Your task to perform on an android device: turn off wifi Image 0: 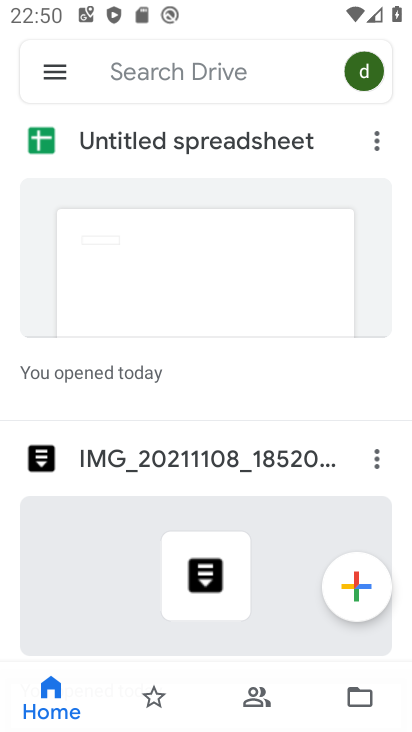
Step 0: press home button
Your task to perform on an android device: turn off wifi Image 1: 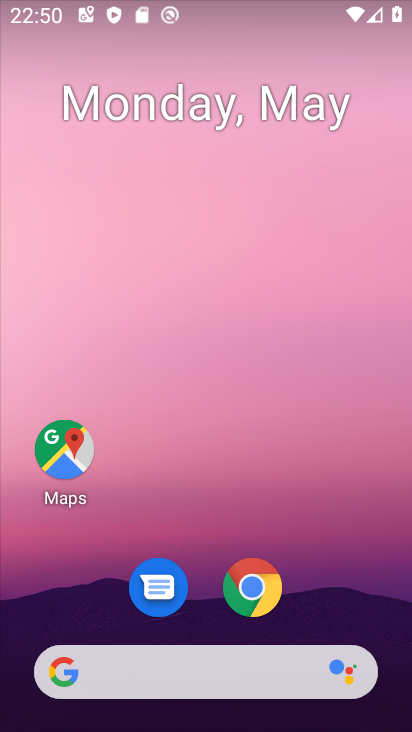
Step 1: drag from (183, 634) to (193, 5)
Your task to perform on an android device: turn off wifi Image 2: 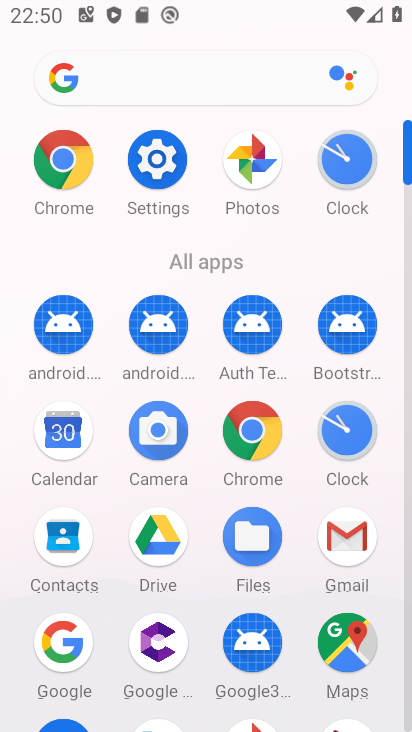
Step 2: click (169, 165)
Your task to perform on an android device: turn off wifi Image 3: 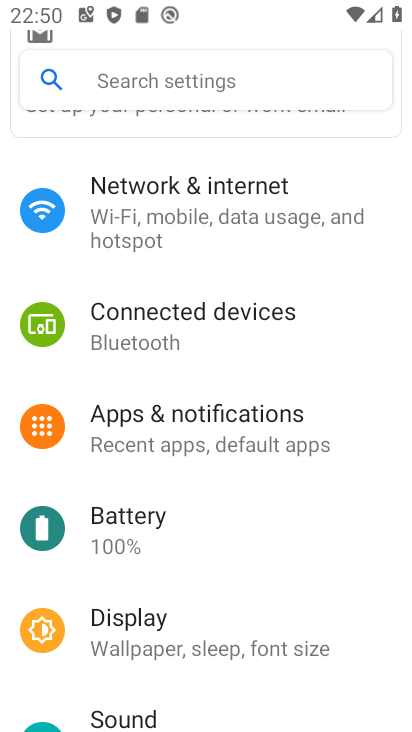
Step 3: click (162, 241)
Your task to perform on an android device: turn off wifi Image 4: 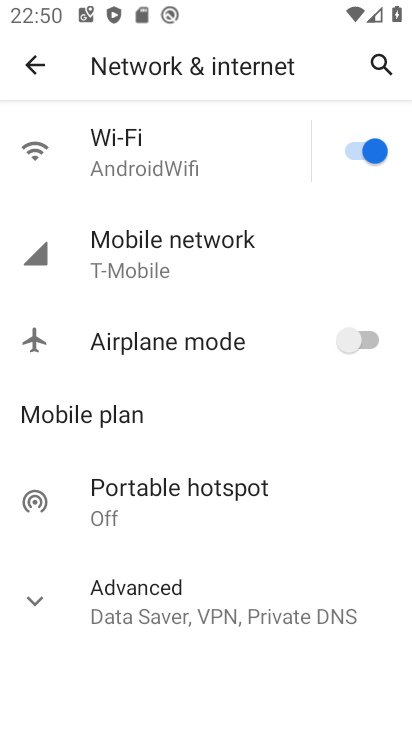
Step 4: click (164, 154)
Your task to perform on an android device: turn off wifi Image 5: 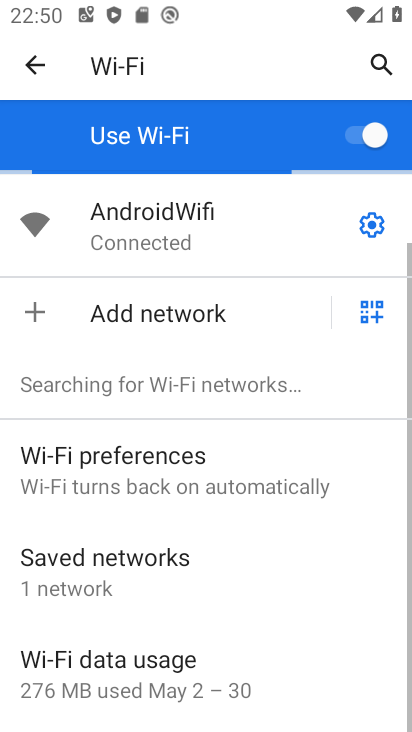
Step 5: click (354, 122)
Your task to perform on an android device: turn off wifi Image 6: 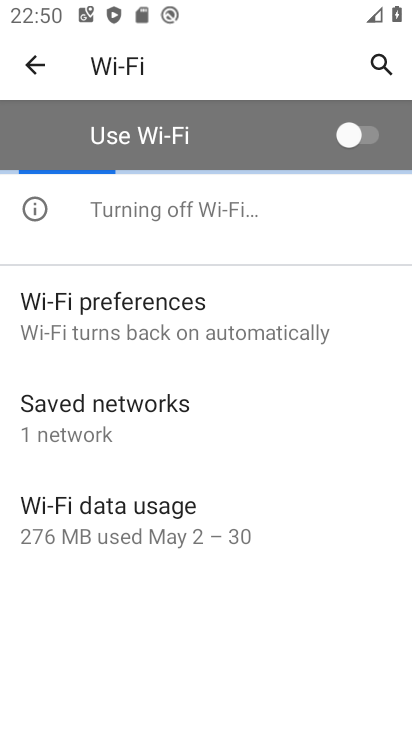
Step 6: task complete